Your task to perform on an android device: Go to location settings Image 0: 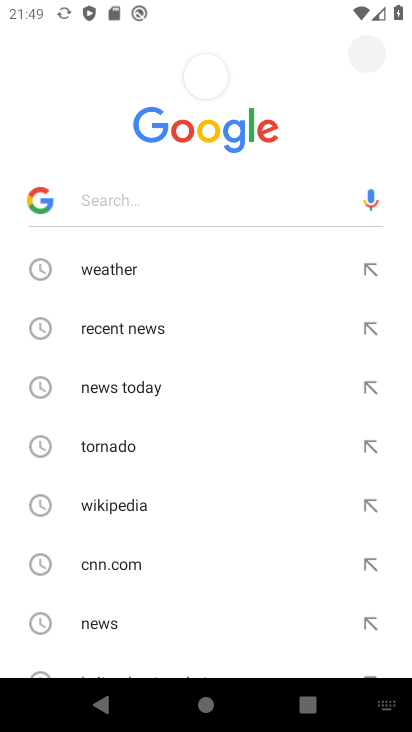
Step 0: press home button
Your task to perform on an android device: Go to location settings Image 1: 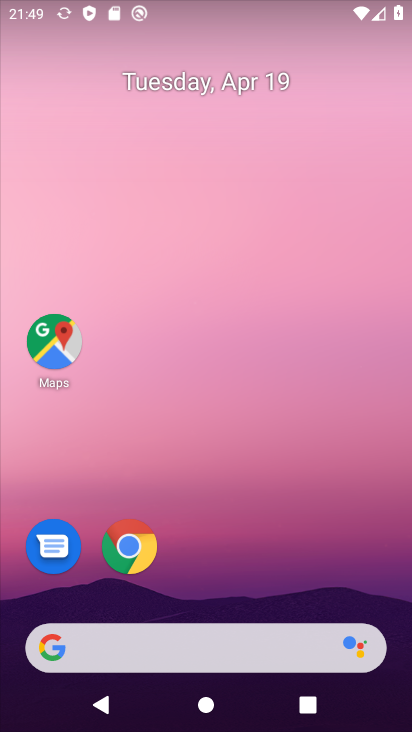
Step 1: drag from (224, 610) to (199, 0)
Your task to perform on an android device: Go to location settings Image 2: 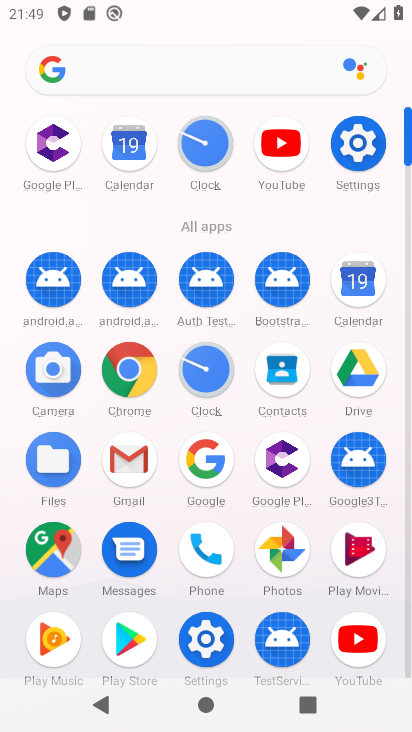
Step 2: click (373, 142)
Your task to perform on an android device: Go to location settings Image 3: 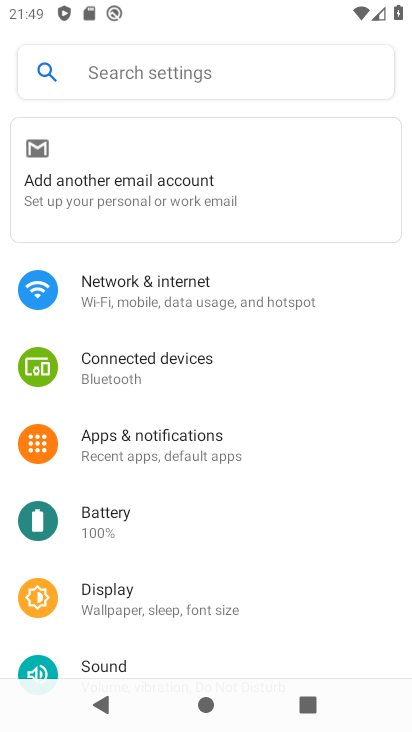
Step 3: drag from (139, 578) to (132, 125)
Your task to perform on an android device: Go to location settings Image 4: 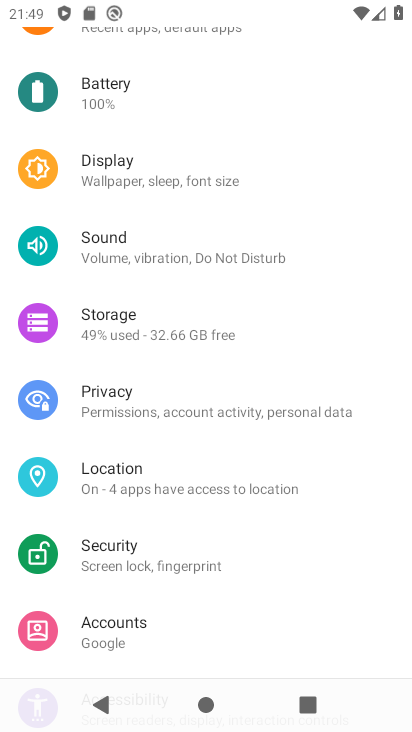
Step 4: click (128, 477)
Your task to perform on an android device: Go to location settings Image 5: 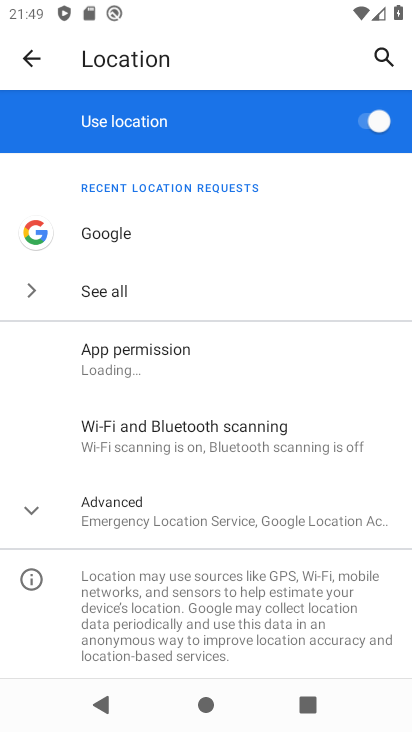
Step 5: click (126, 502)
Your task to perform on an android device: Go to location settings Image 6: 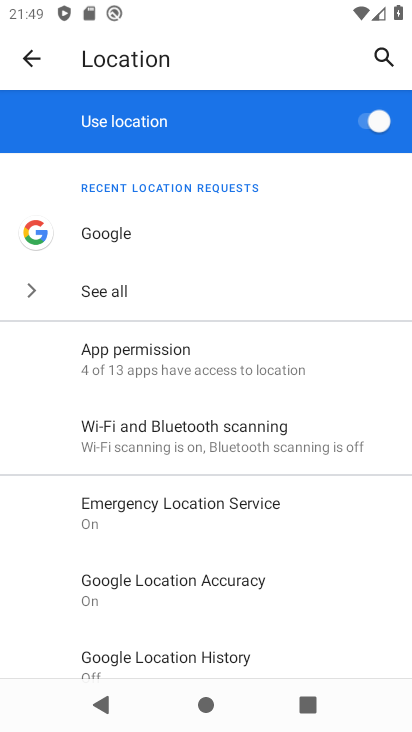
Step 6: task complete